Your task to perform on an android device: delete the emails in spam in the gmail app Image 0: 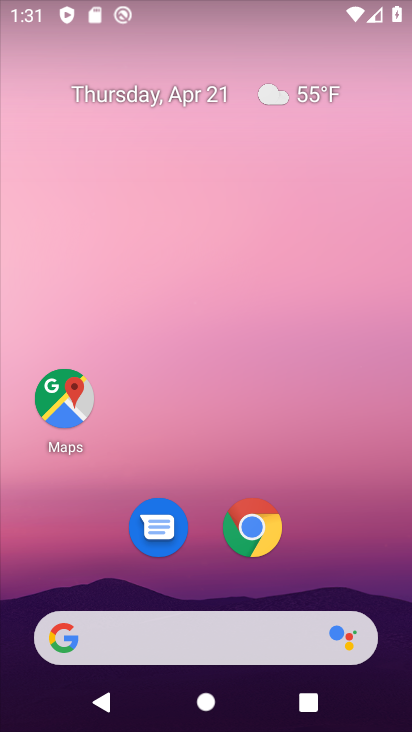
Step 0: drag from (347, 559) to (363, 112)
Your task to perform on an android device: delete the emails in spam in the gmail app Image 1: 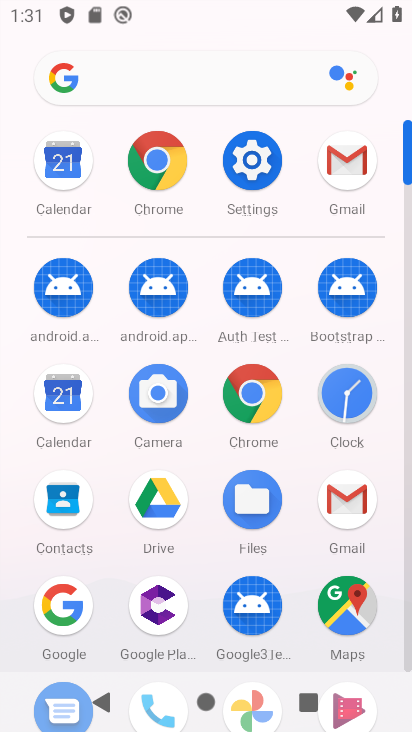
Step 1: click (346, 509)
Your task to perform on an android device: delete the emails in spam in the gmail app Image 2: 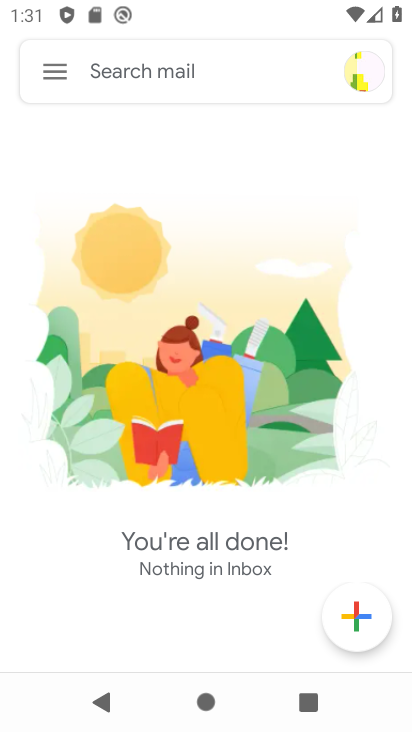
Step 2: click (53, 71)
Your task to perform on an android device: delete the emails in spam in the gmail app Image 3: 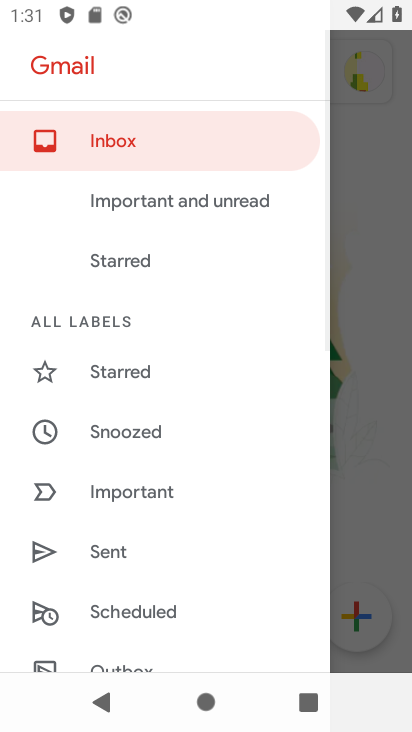
Step 3: drag from (222, 548) to (251, 344)
Your task to perform on an android device: delete the emails in spam in the gmail app Image 4: 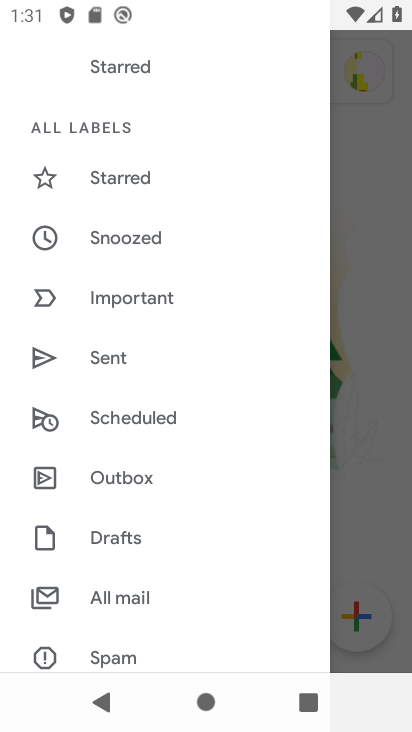
Step 4: drag from (252, 556) to (258, 356)
Your task to perform on an android device: delete the emails in spam in the gmail app Image 5: 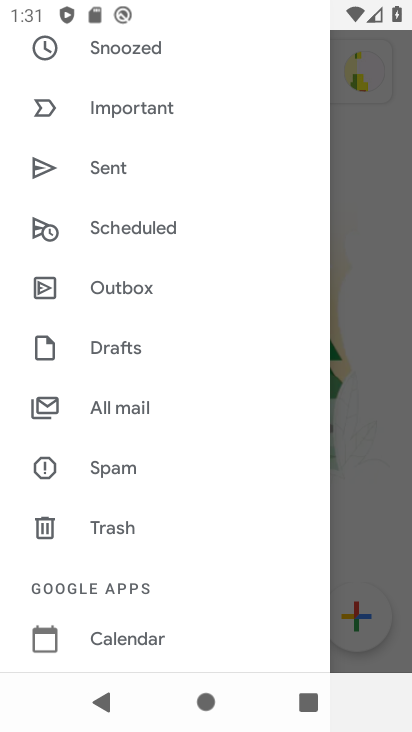
Step 5: drag from (249, 581) to (259, 364)
Your task to perform on an android device: delete the emails in spam in the gmail app Image 6: 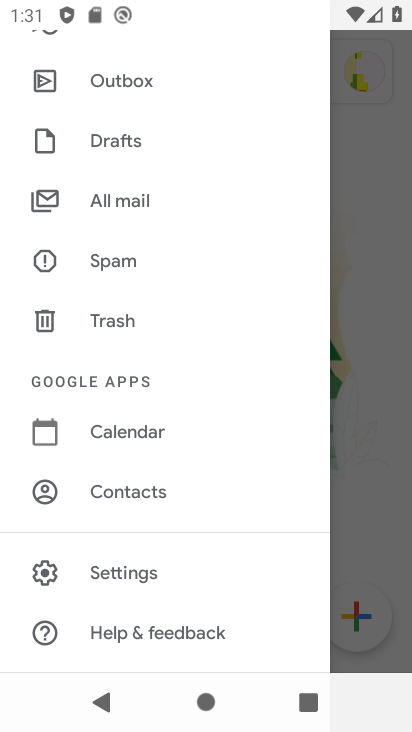
Step 6: drag from (273, 578) to (282, 360)
Your task to perform on an android device: delete the emails in spam in the gmail app Image 7: 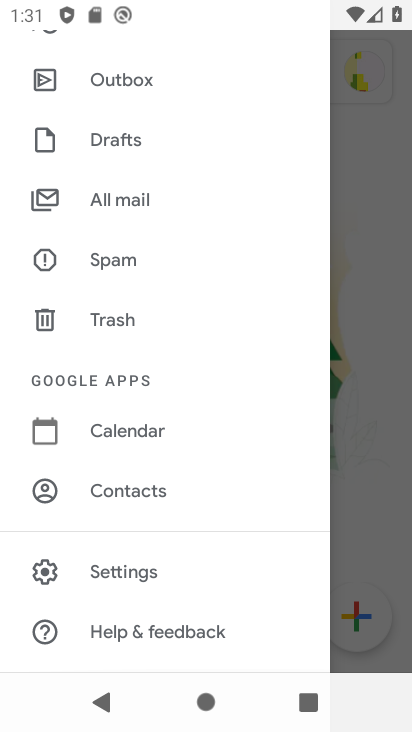
Step 7: drag from (269, 253) to (265, 438)
Your task to perform on an android device: delete the emails in spam in the gmail app Image 8: 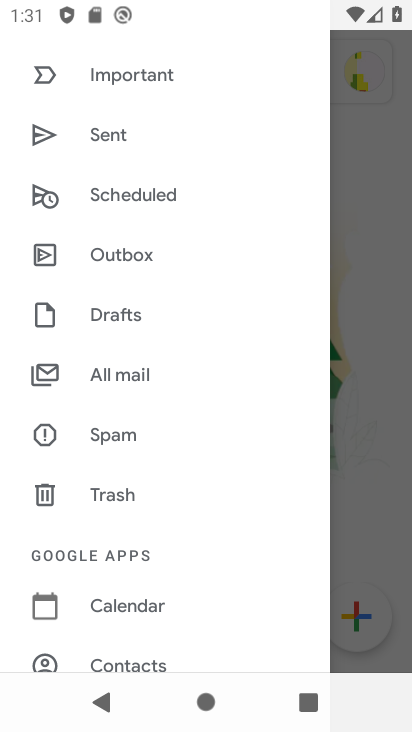
Step 8: drag from (254, 232) to (250, 432)
Your task to perform on an android device: delete the emails in spam in the gmail app Image 9: 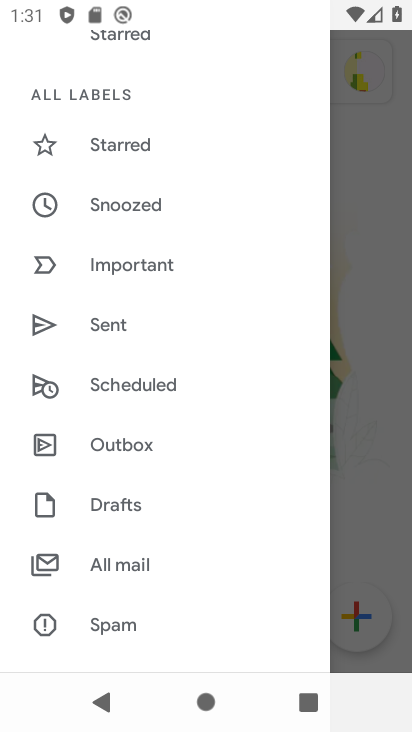
Step 9: drag from (273, 222) to (262, 434)
Your task to perform on an android device: delete the emails in spam in the gmail app Image 10: 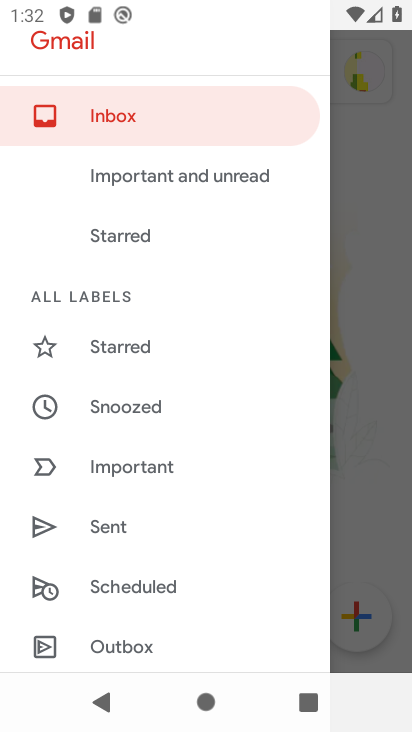
Step 10: click (145, 120)
Your task to perform on an android device: delete the emails in spam in the gmail app Image 11: 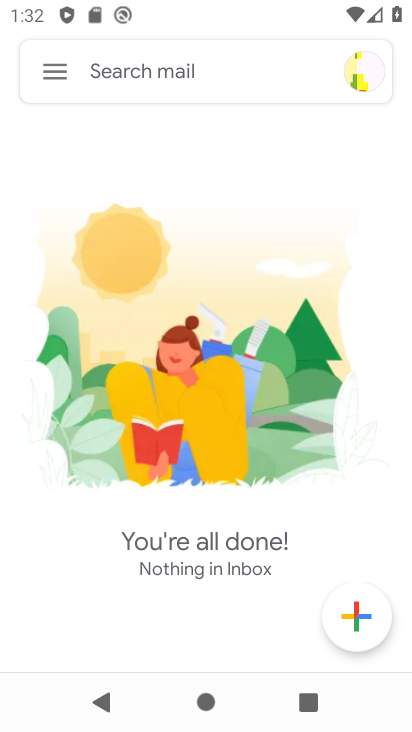
Step 11: task complete